Your task to perform on an android device: turn off notifications settings in the gmail app Image 0: 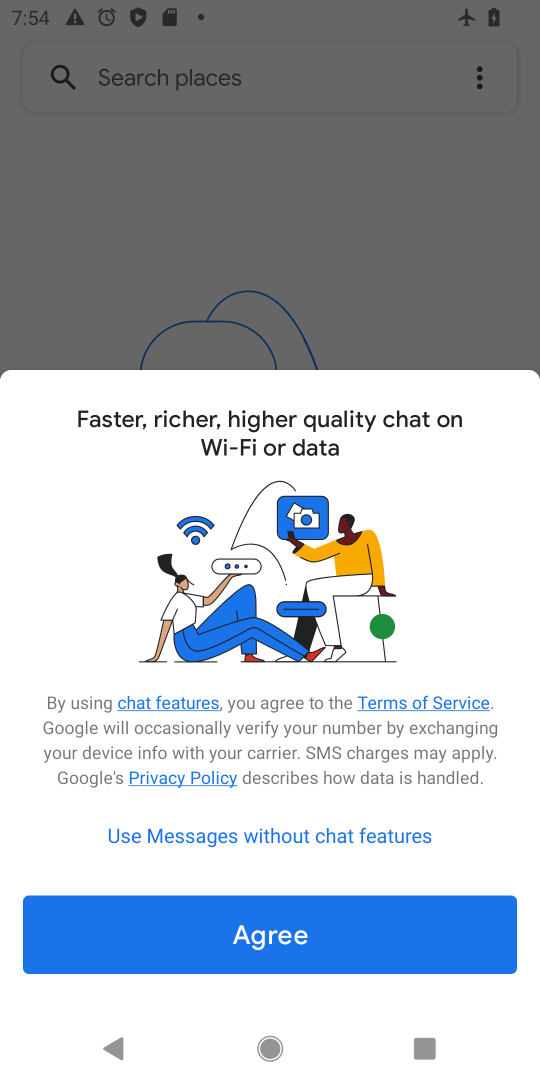
Step 0: press home button
Your task to perform on an android device: turn off notifications settings in the gmail app Image 1: 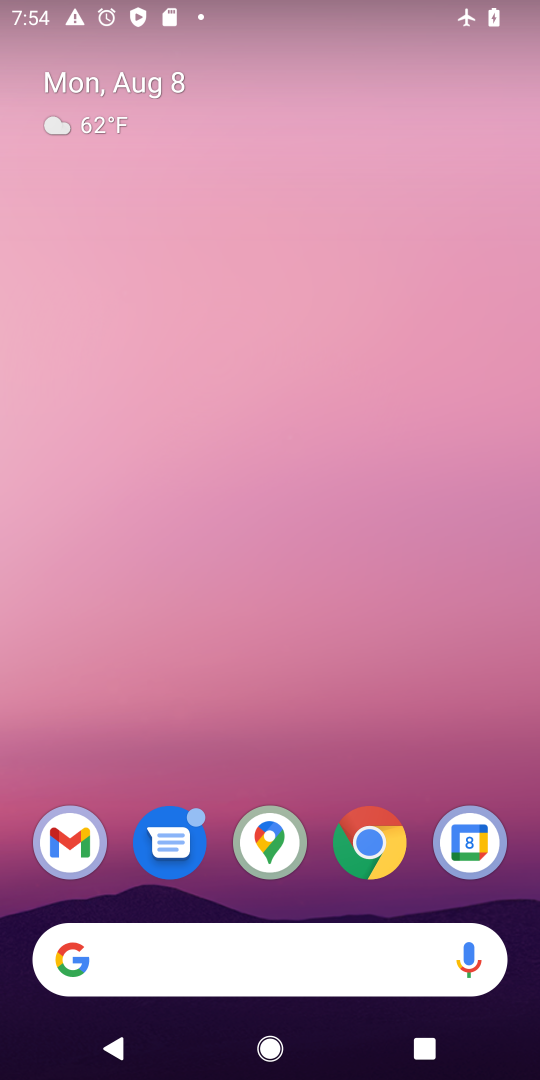
Step 1: click (63, 846)
Your task to perform on an android device: turn off notifications settings in the gmail app Image 2: 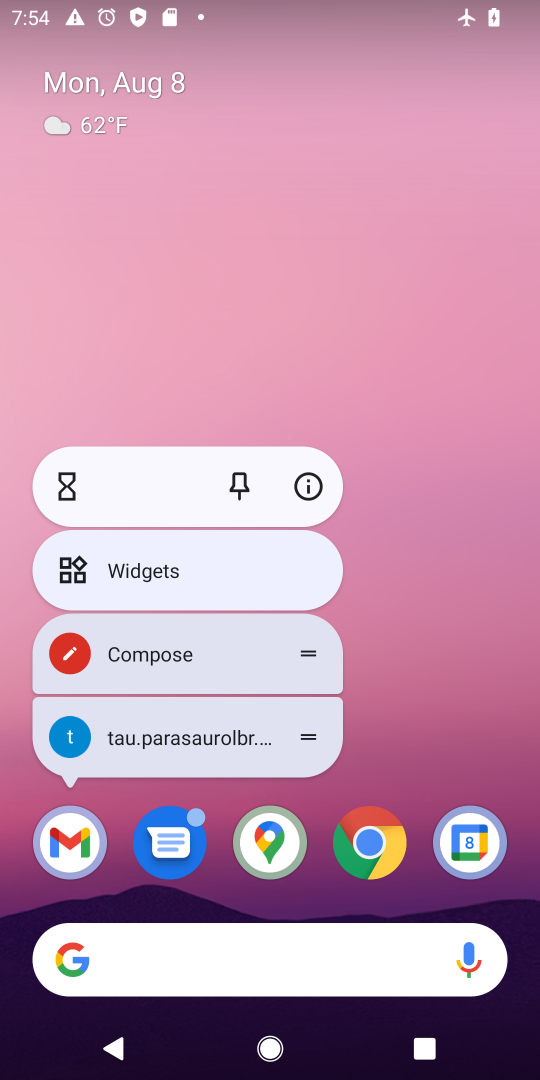
Step 2: click (63, 847)
Your task to perform on an android device: turn off notifications settings in the gmail app Image 3: 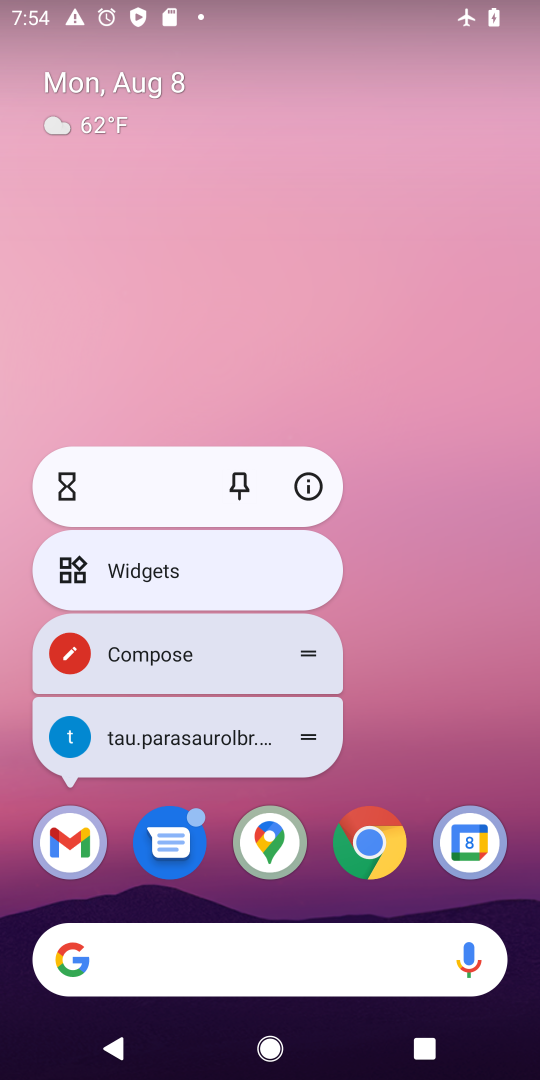
Step 3: click (63, 847)
Your task to perform on an android device: turn off notifications settings in the gmail app Image 4: 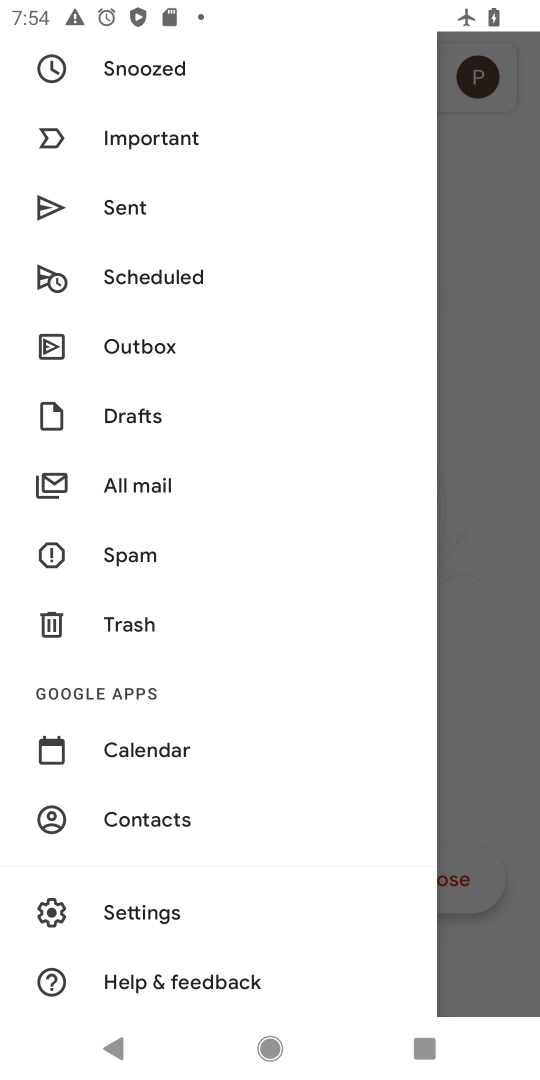
Step 4: click (105, 907)
Your task to perform on an android device: turn off notifications settings in the gmail app Image 5: 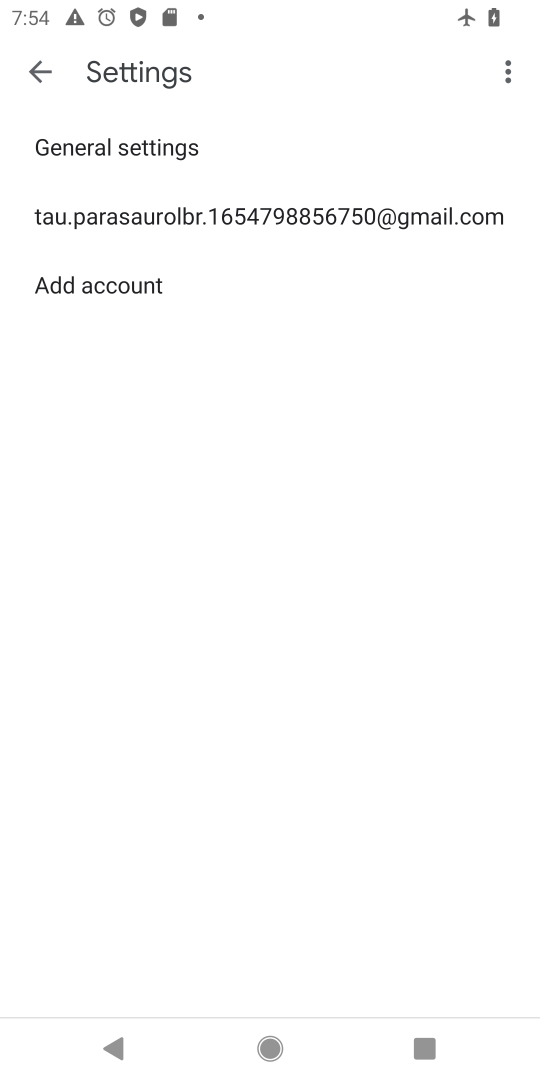
Step 5: click (53, 212)
Your task to perform on an android device: turn off notifications settings in the gmail app Image 6: 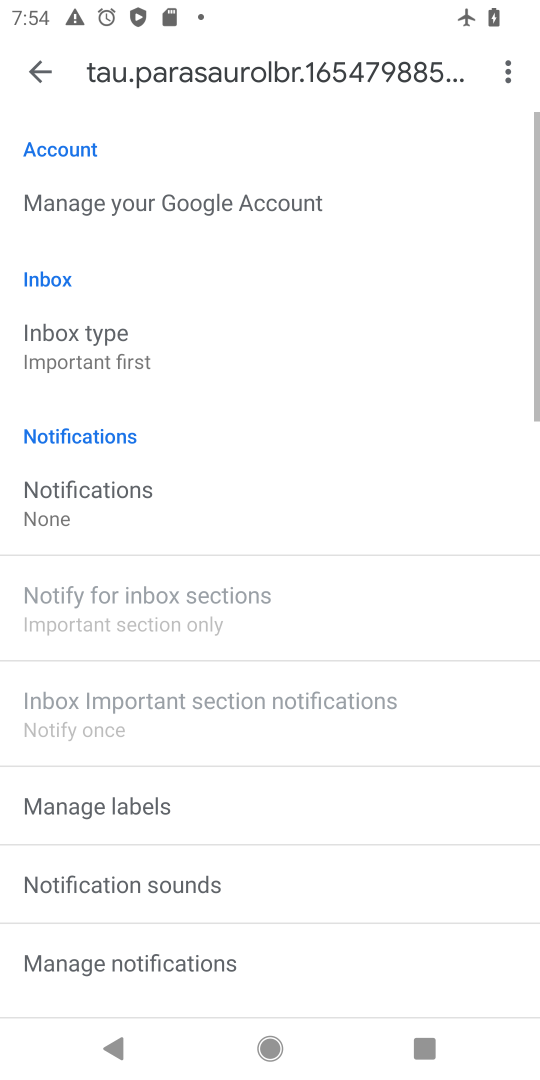
Step 6: click (74, 476)
Your task to perform on an android device: turn off notifications settings in the gmail app Image 7: 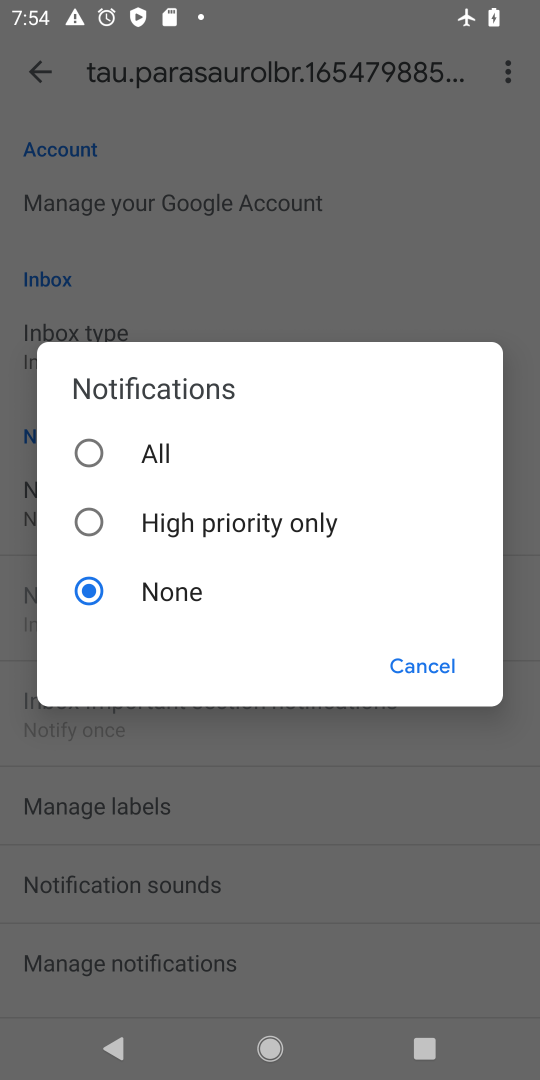
Step 7: task complete